Your task to perform on an android device: add a contact in the contacts app Image 0: 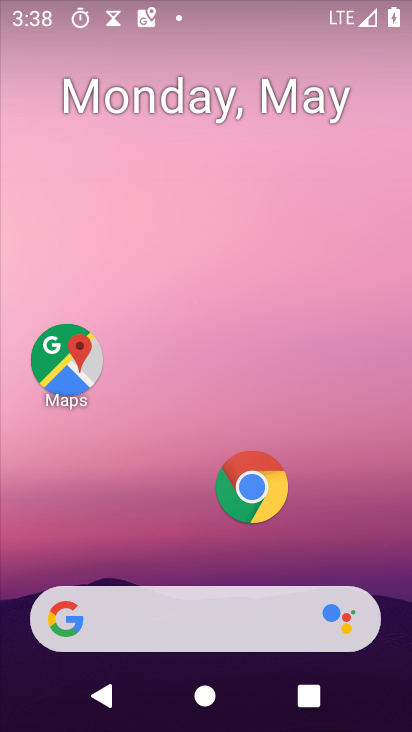
Step 0: drag from (185, 555) to (257, 51)
Your task to perform on an android device: add a contact in the contacts app Image 1: 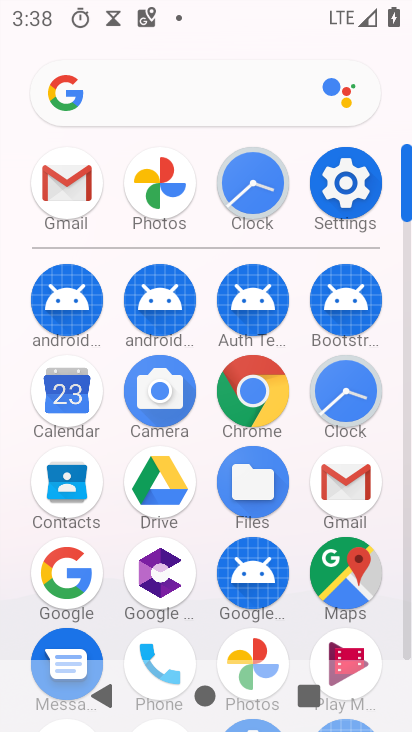
Step 1: click (66, 495)
Your task to perform on an android device: add a contact in the contacts app Image 2: 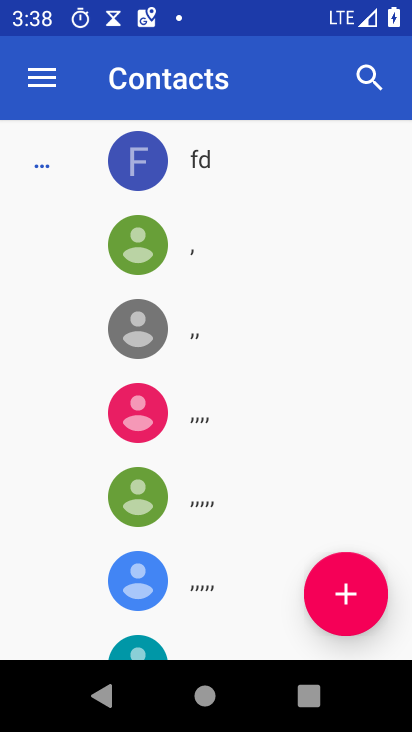
Step 2: click (360, 598)
Your task to perform on an android device: add a contact in the contacts app Image 3: 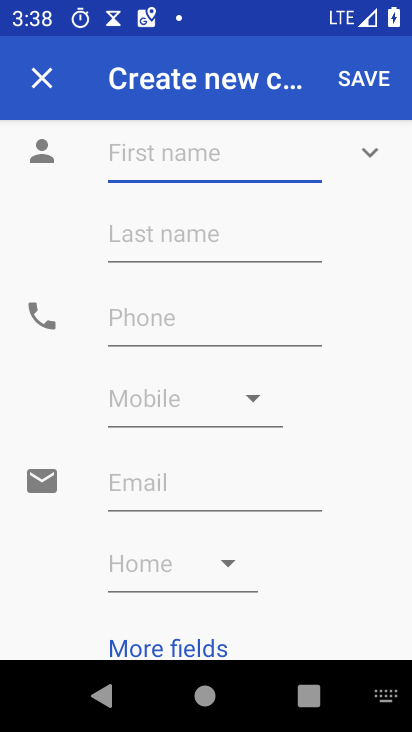
Step 3: type "rtyuhgfvb"
Your task to perform on an android device: add a contact in the contacts app Image 4: 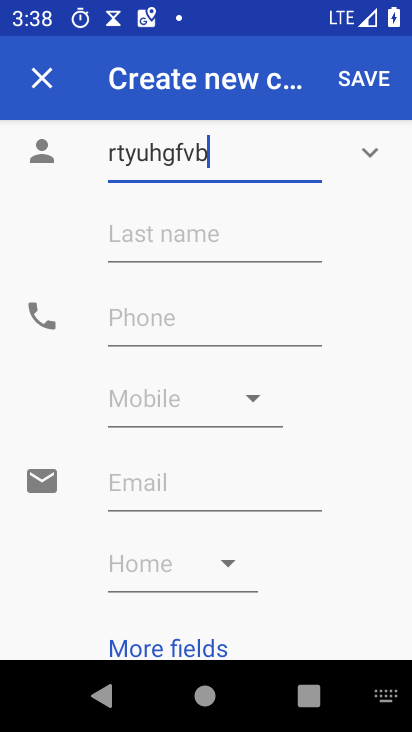
Step 4: click (150, 327)
Your task to perform on an android device: add a contact in the contacts app Image 5: 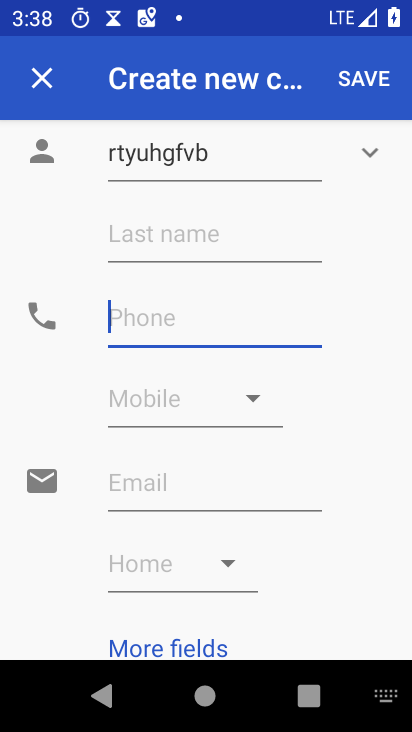
Step 5: type "2345678901"
Your task to perform on an android device: add a contact in the contacts app Image 6: 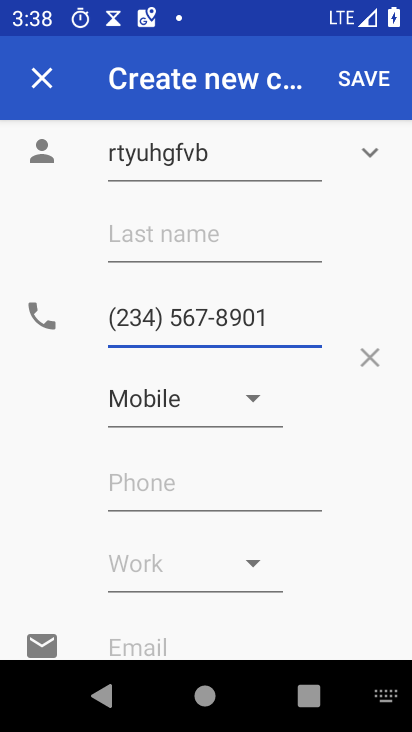
Step 6: click (375, 77)
Your task to perform on an android device: add a contact in the contacts app Image 7: 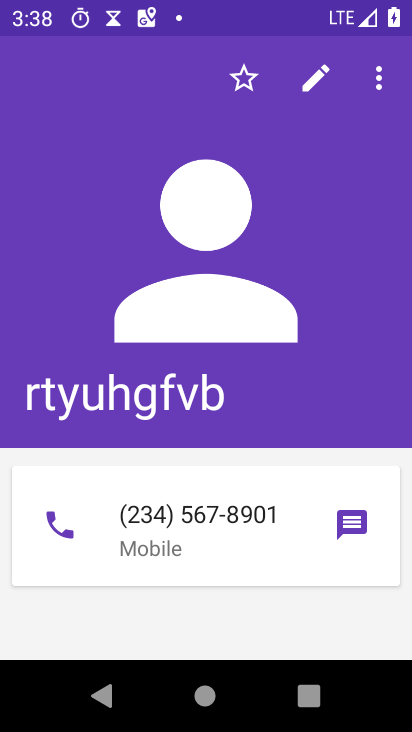
Step 7: task complete